Your task to perform on an android device: Open CNN.com Image 0: 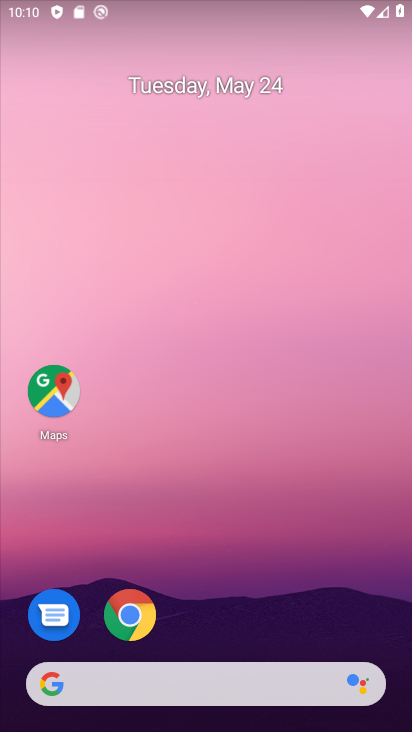
Step 0: click (129, 618)
Your task to perform on an android device: Open CNN.com Image 1: 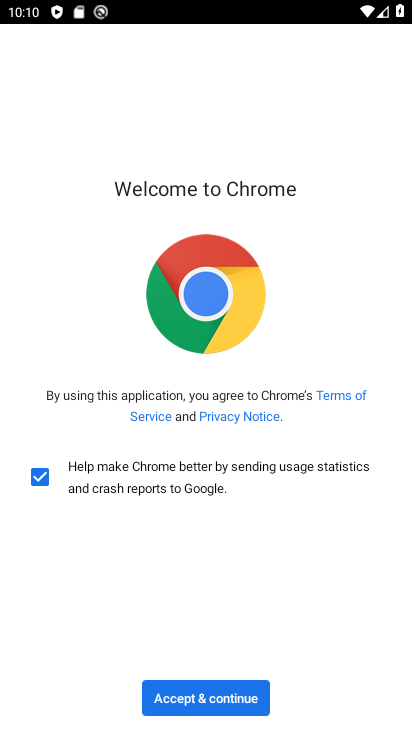
Step 1: click (207, 671)
Your task to perform on an android device: Open CNN.com Image 2: 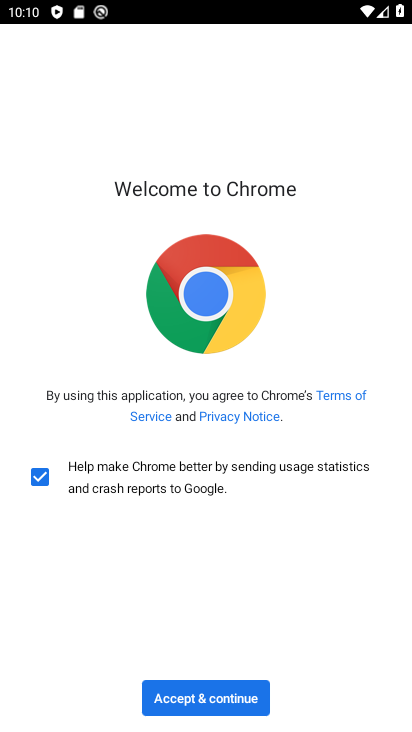
Step 2: click (209, 701)
Your task to perform on an android device: Open CNN.com Image 3: 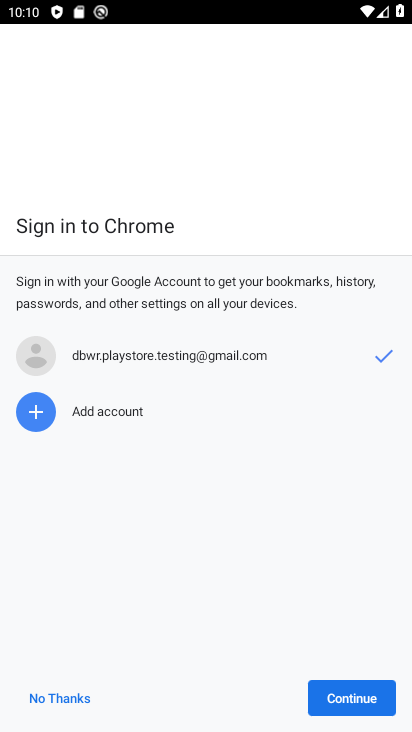
Step 3: click (355, 703)
Your task to perform on an android device: Open CNN.com Image 4: 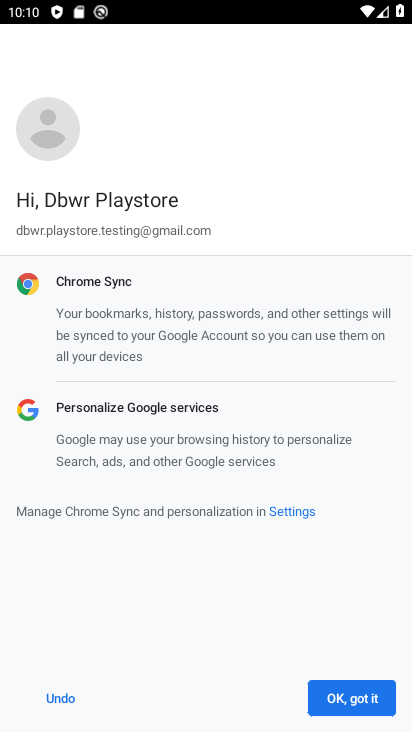
Step 4: click (355, 703)
Your task to perform on an android device: Open CNN.com Image 5: 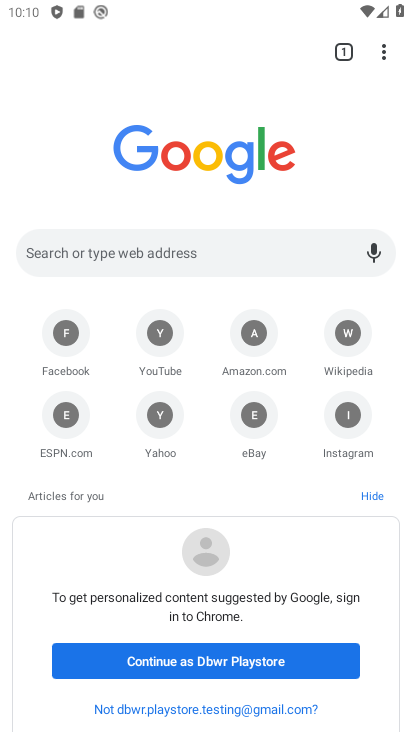
Step 5: click (169, 51)
Your task to perform on an android device: Open CNN.com Image 6: 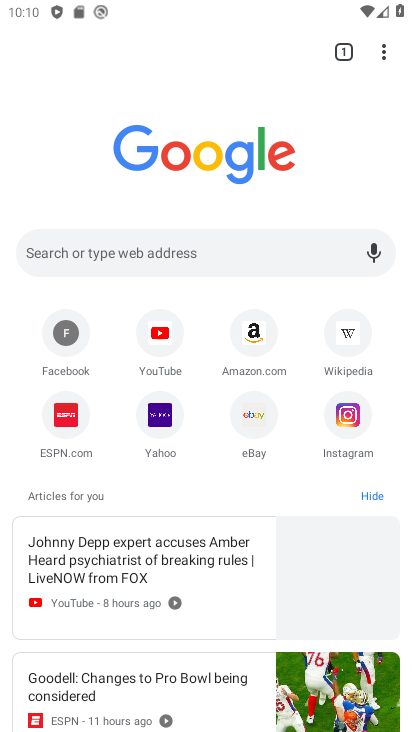
Step 6: click (229, 252)
Your task to perform on an android device: Open CNN.com Image 7: 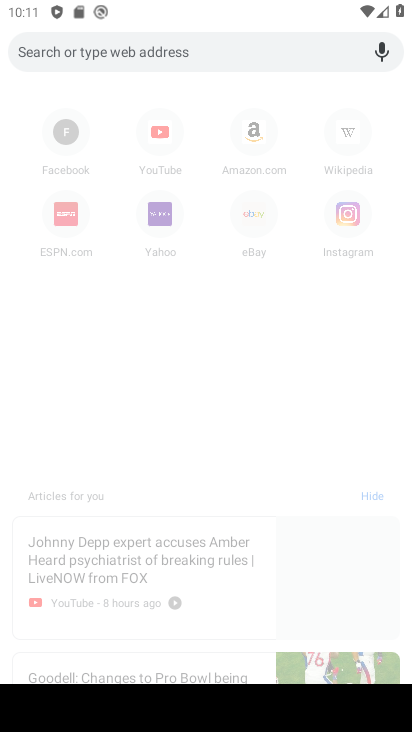
Step 7: type "CNN.com"
Your task to perform on an android device: Open CNN.com Image 8: 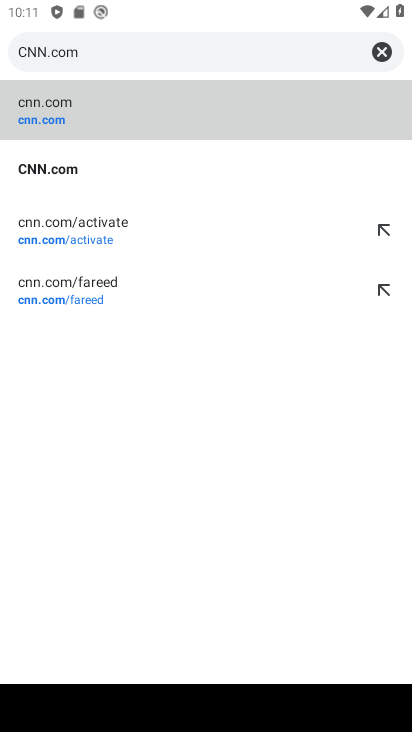
Step 8: click (273, 174)
Your task to perform on an android device: Open CNN.com Image 9: 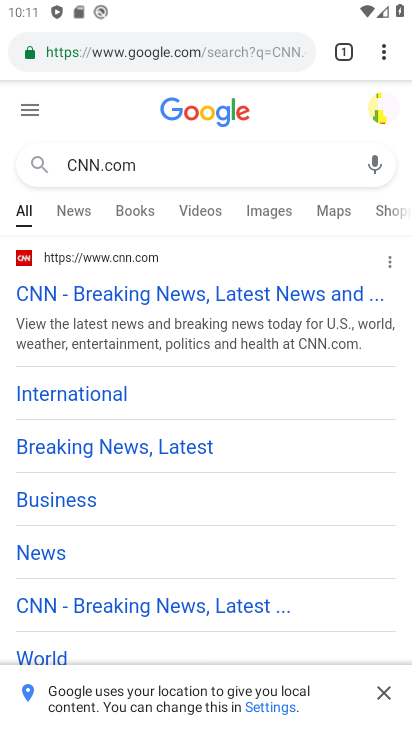
Step 9: click (162, 287)
Your task to perform on an android device: Open CNN.com Image 10: 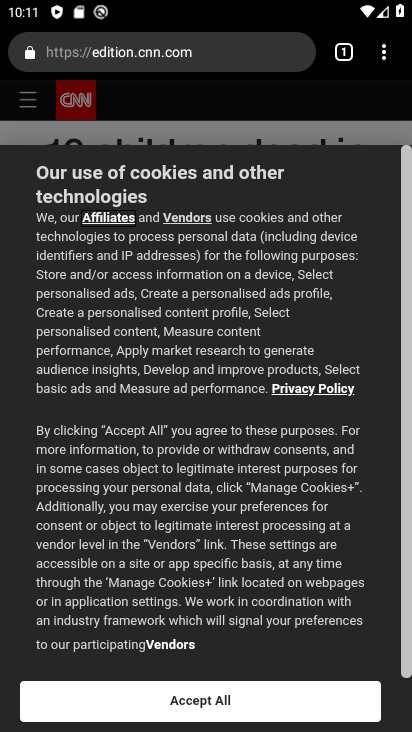
Step 10: task complete